Your task to perform on an android device: Open network settings Image 0: 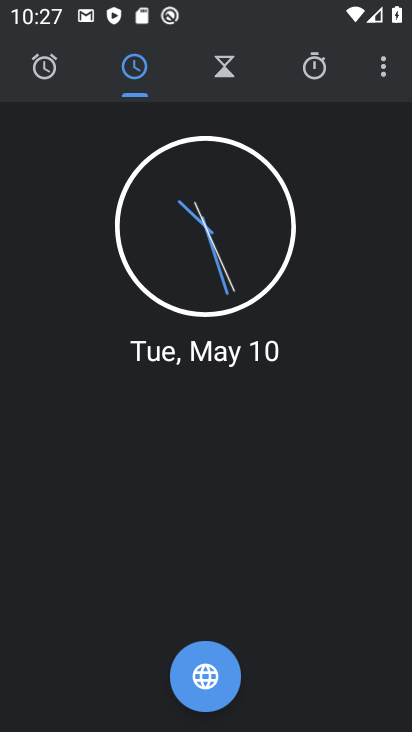
Step 0: press home button
Your task to perform on an android device: Open network settings Image 1: 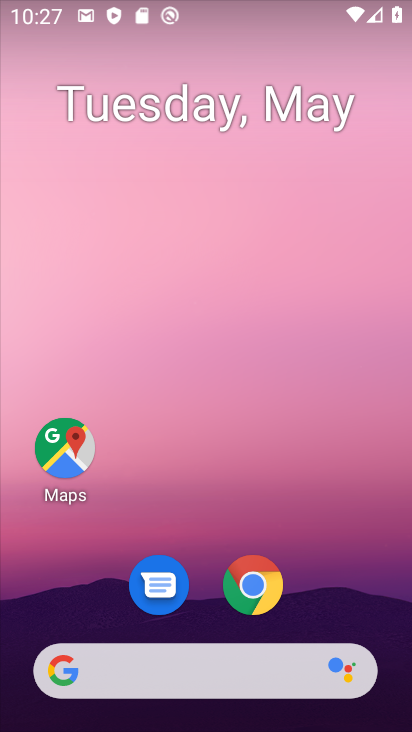
Step 1: drag from (279, 492) to (252, 45)
Your task to perform on an android device: Open network settings Image 2: 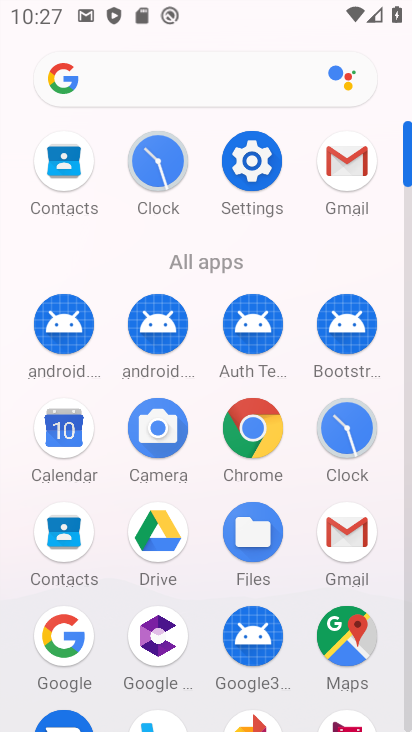
Step 2: click (255, 156)
Your task to perform on an android device: Open network settings Image 3: 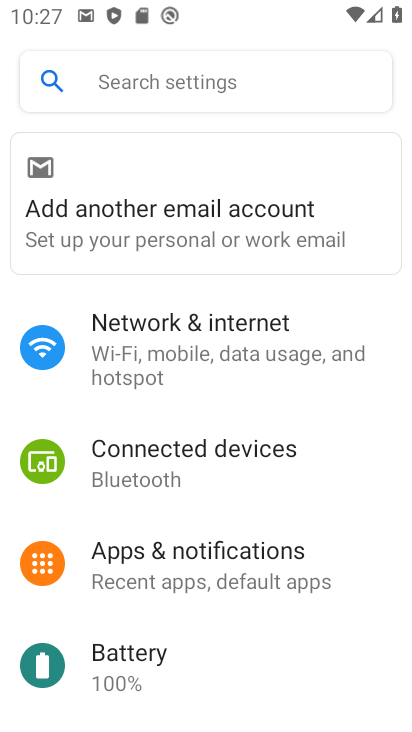
Step 3: click (230, 327)
Your task to perform on an android device: Open network settings Image 4: 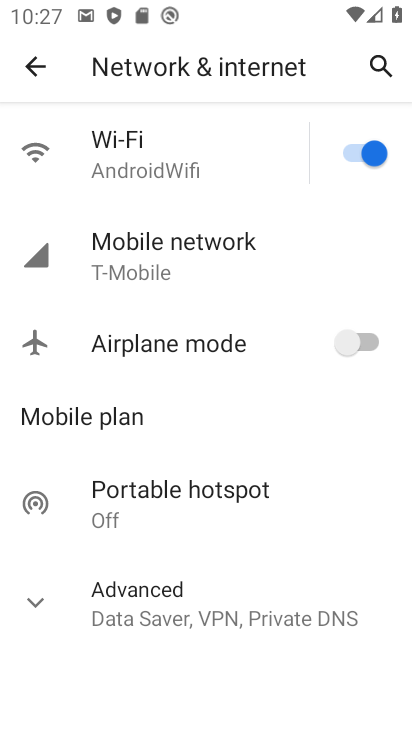
Step 4: task complete